Your task to perform on an android device: refresh tabs in the chrome app Image 0: 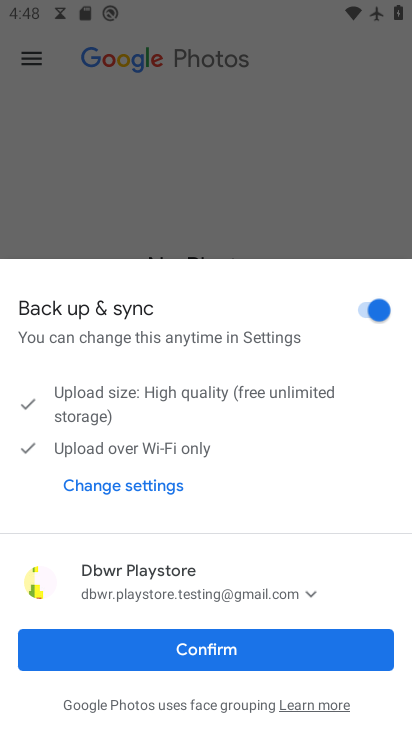
Step 0: press home button
Your task to perform on an android device: refresh tabs in the chrome app Image 1: 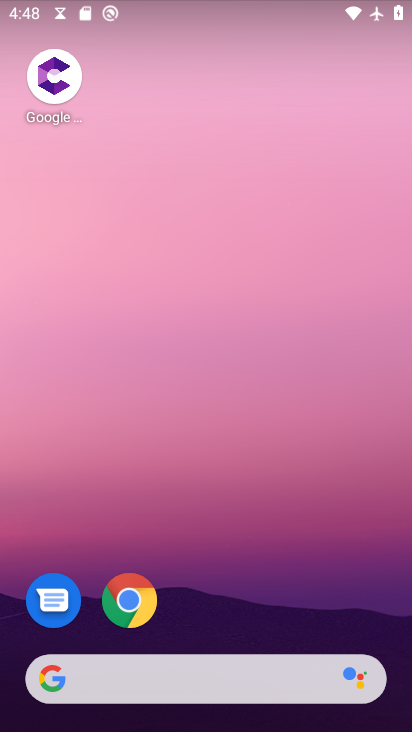
Step 1: drag from (260, 475) to (243, 588)
Your task to perform on an android device: refresh tabs in the chrome app Image 2: 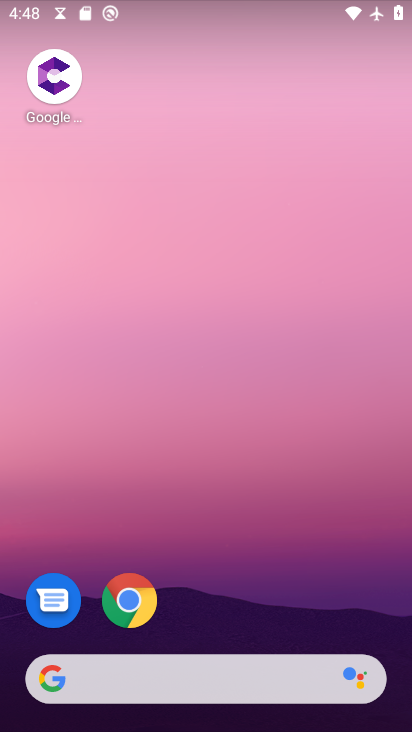
Step 2: click (143, 593)
Your task to perform on an android device: refresh tabs in the chrome app Image 3: 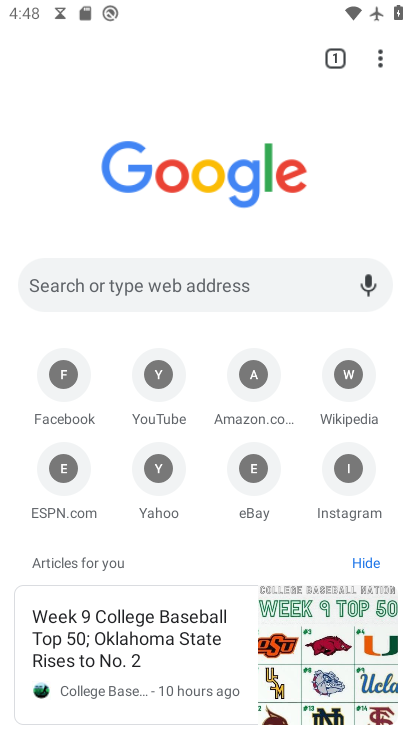
Step 3: click (388, 61)
Your task to perform on an android device: refresh tabs in the chrome app Image 4: 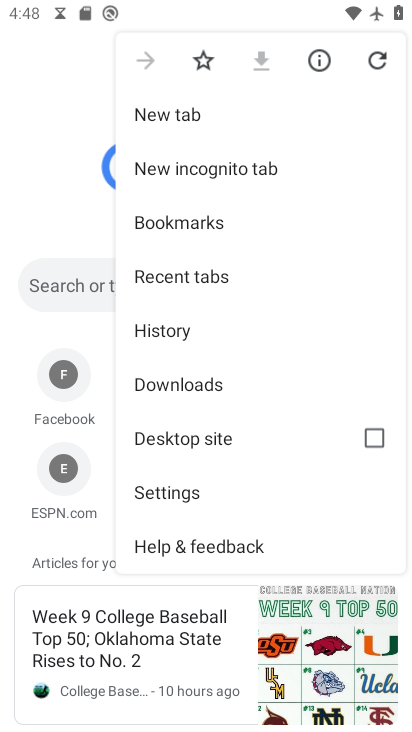
Step 4: click (375, 59)
Your task to perform on an android device: refresh tabs in the chrome app Image 5: 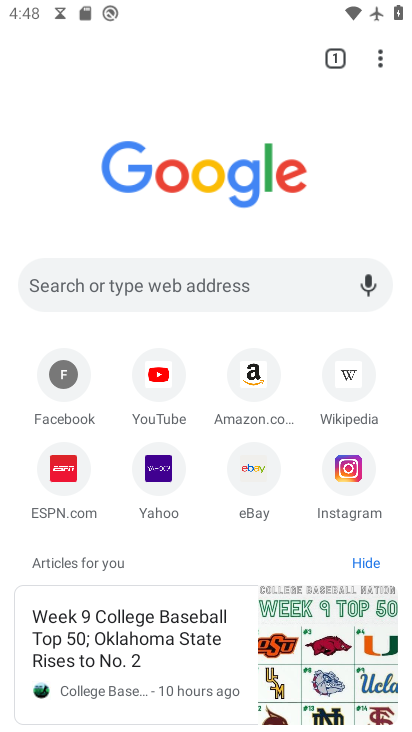
Step 5: task complete